Your task to perform on an android device: Is it going to rain tomorrow? Image 0: 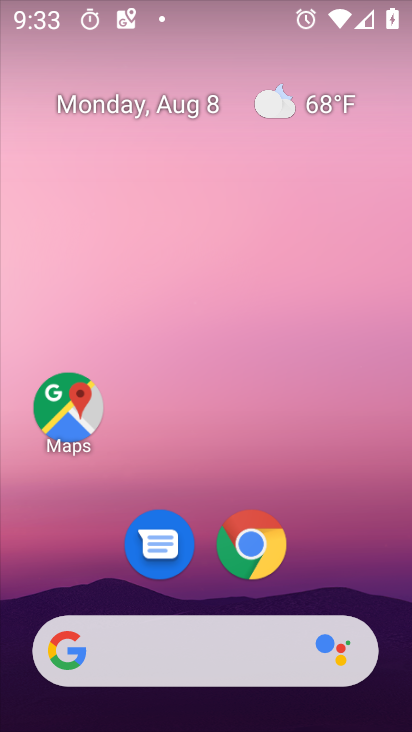
Step 0: press home button
Your task to perform on an android device: Is it going to rain tomorrow? Image 1: 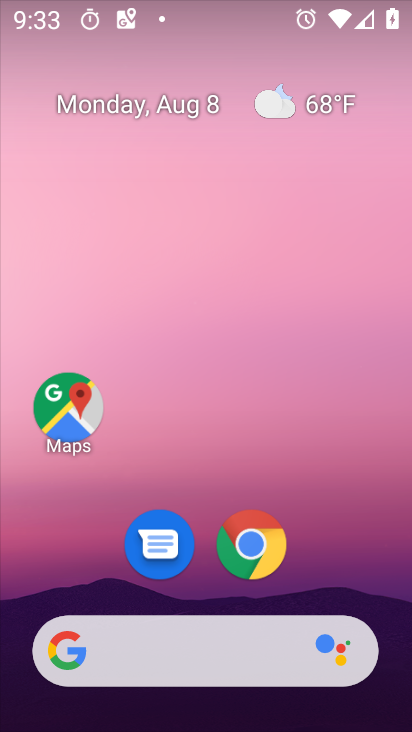
Step 1: click (322, 102)
Your task to perform on an android device: Is it going to rain tomorrow? Image 2: 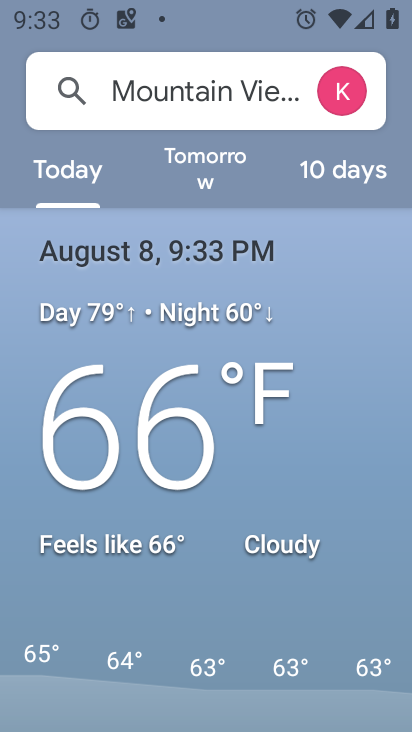
Step 2: click (210, 175)
Your task to perform on an android device: Is it going to rain tomorrow? Image 3: 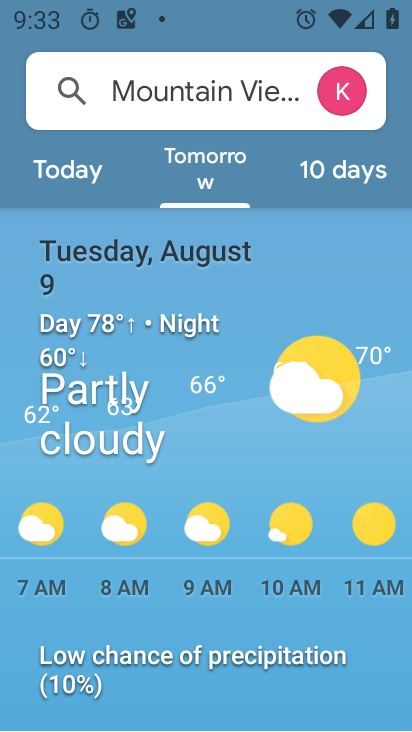
Step 3: task complete